Your task to perform on an android device: turn off location history Image 0: 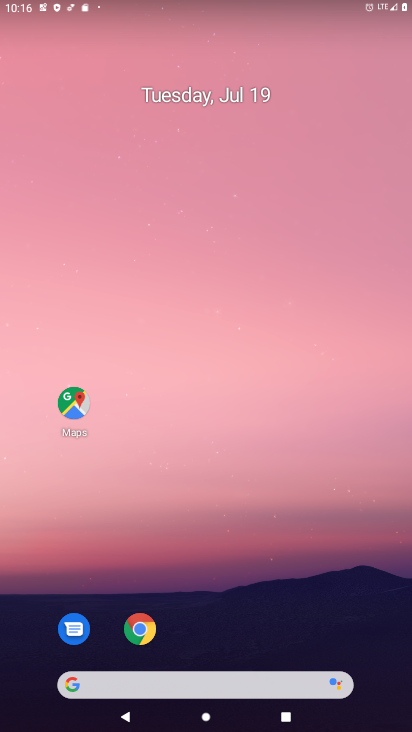
Step 0: drag from (205, 642) to (194, 21)
Your task to perform on an android device: turn off location history Image 1: 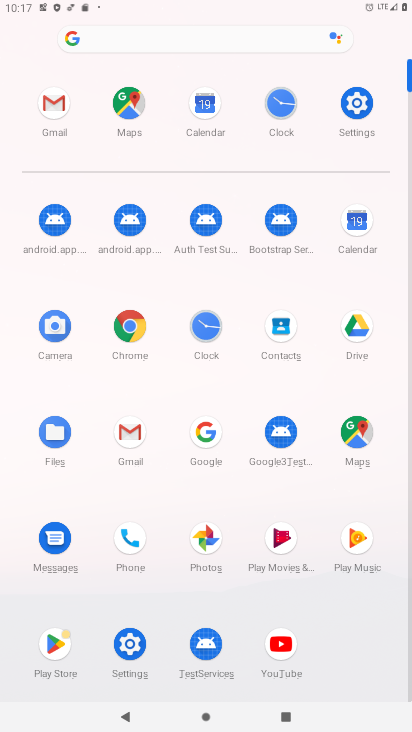
Step 1: click (129, 644)
Your task to perform on an android device: turn off location history Image 2: 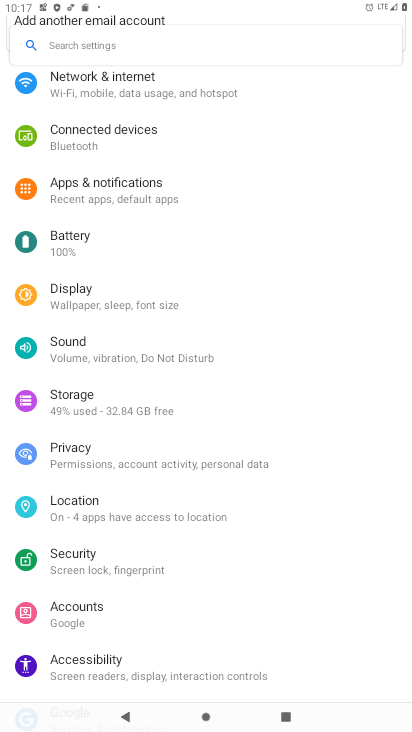
Step 2: click (107, 513)
Your task to perform on an android device: turn off location history Image 3: 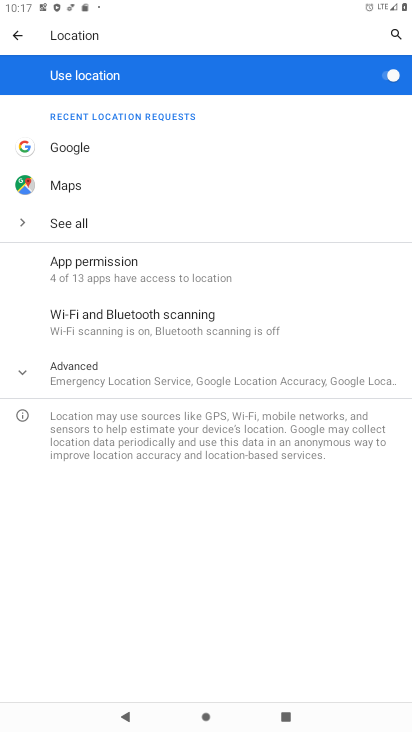
Step 3: click (90, 381)
Your task to perform on an android device: turn off location history Image 4: 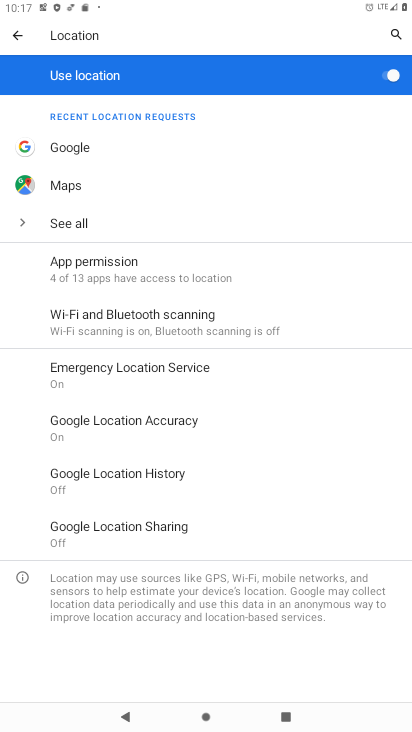
Step 4: click (103, 481)
Your task to perform on an android device: turn off location history Image 5: 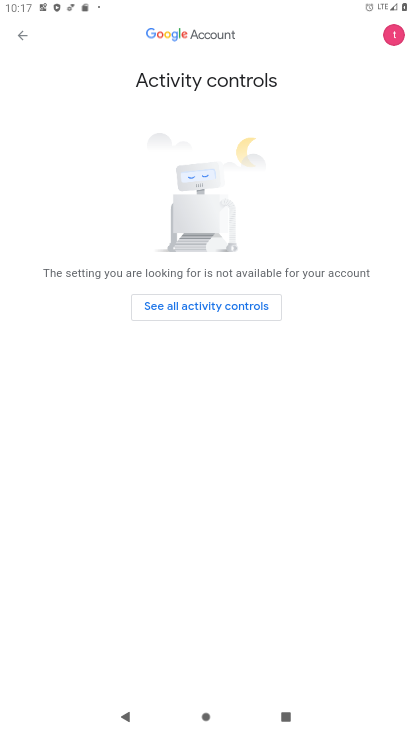
Step 5: click (242, 303)
Your task to perform on an android device: turn off location history Image 6: 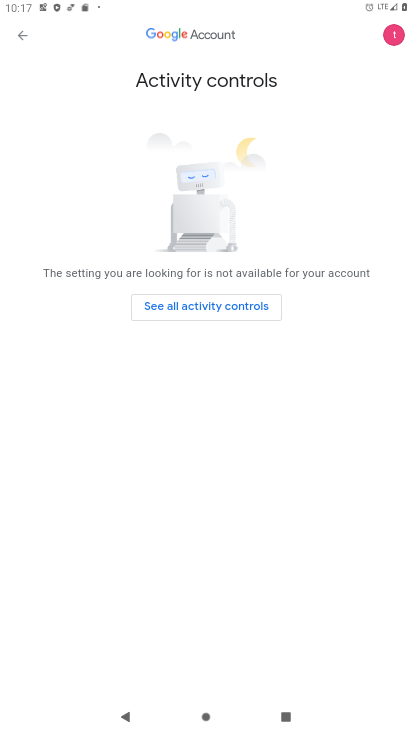
Step 6: click (247, 307)
Your task to perform on an android device: turn off location history Image 7: 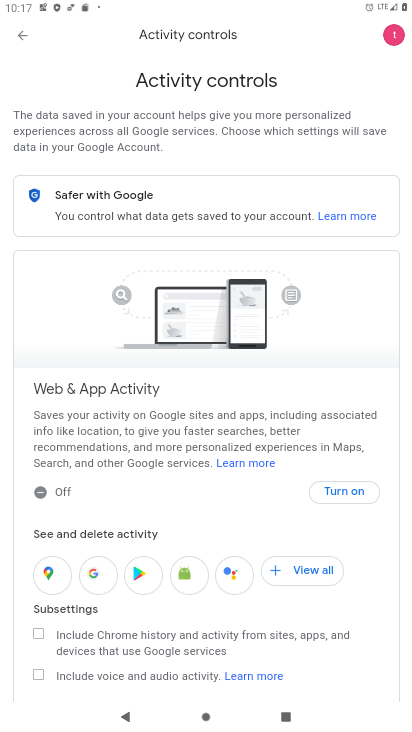
Step 7: task complete